Your task to perform on an android device: Check the weather Image 0: 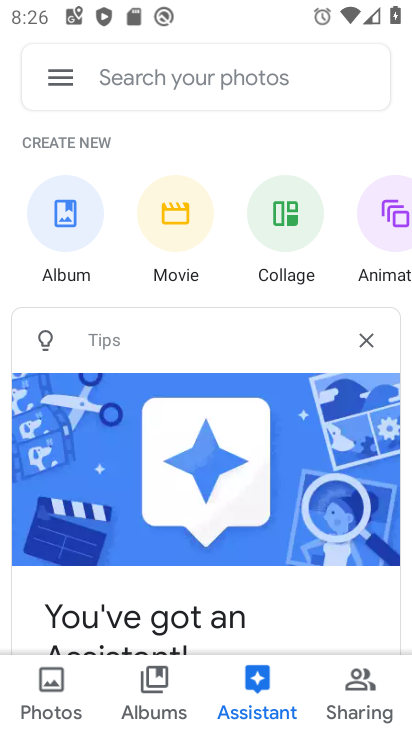
Step 0: press home button
Your task to perform on an android device: Check the weather Image 1: 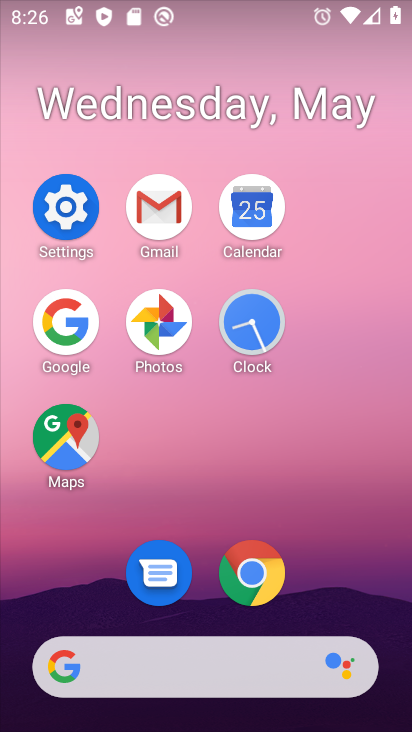
Step 1: click (87, 323)
Your task to perform on an android device: Check the weather Image 2: 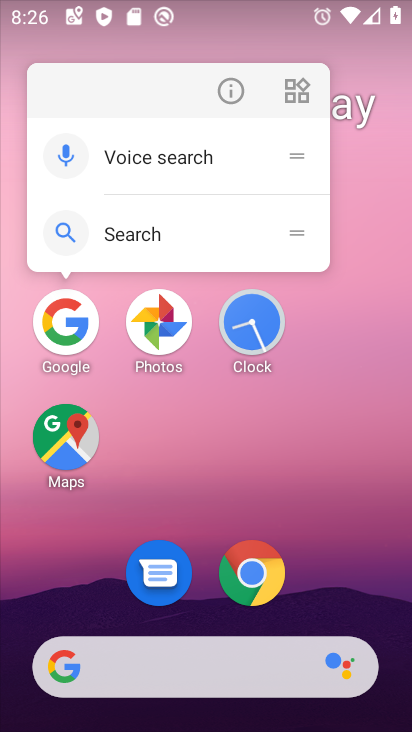
Step 2: click (72, 341)
Your task to perform on an android device: Check the weather Image 3: 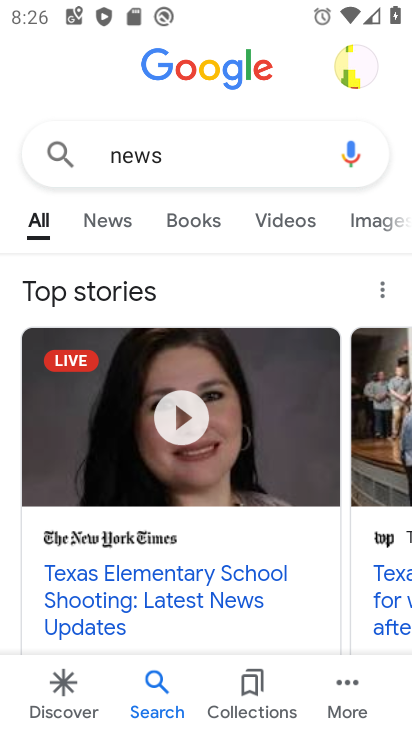
Step 3: click (196, 153)
Your task to perform on an android device: Check the weather Image 4: 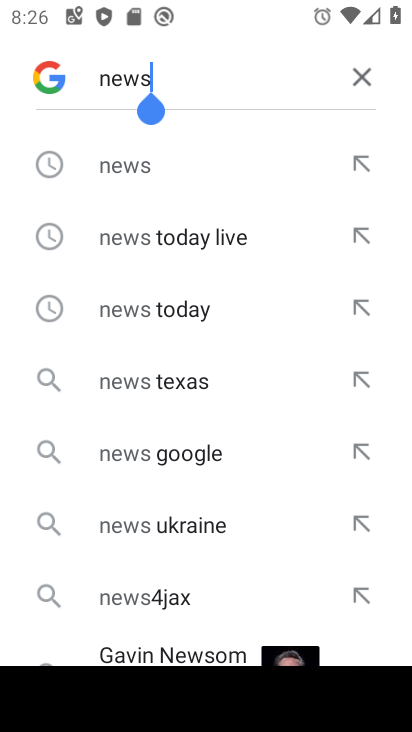
Step 4: click (365, 76)
Your task to perform on an android device: Check the weather Image 5: 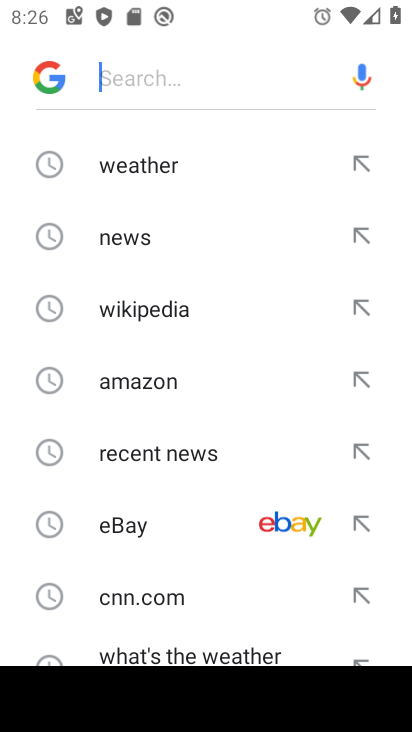
Step 5: click (169, 158)
Your task to perform on an android device: Check the weather Image 6: 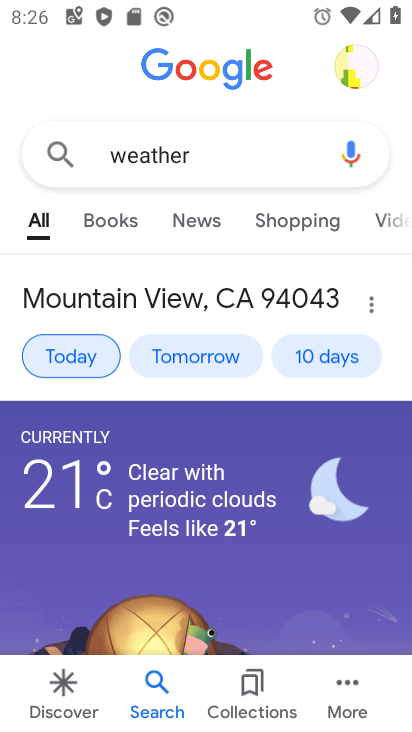
Step 6: task complete